Your task to perform on an android device: Open the calendar app, open the side menu, and click the "Day" option Image 0: 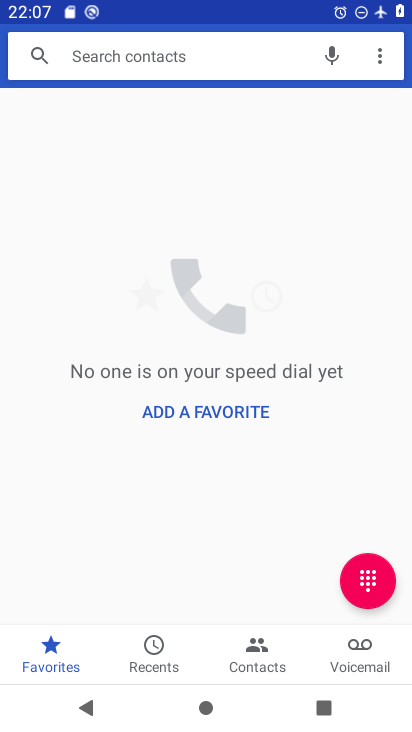
Step 0: press home button
Your task to perform on an android device: Open the calendar app, open the side menu, and click the "Day" option Image 1: 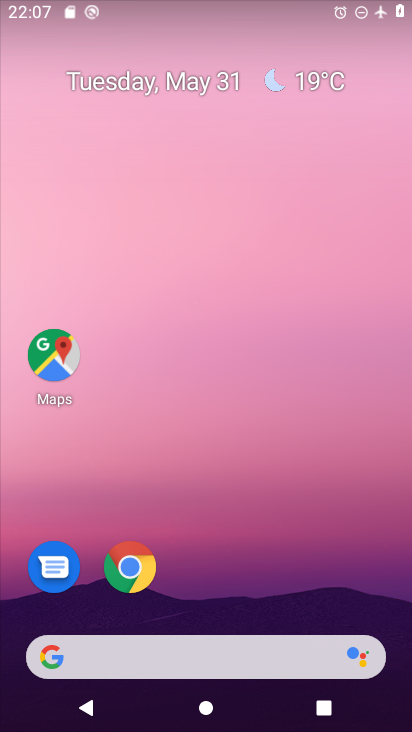
Step 1: drag from (195, 630) to (222, 257)
Your task to perform on an android device: Open the calendar app, open the side menu, and click the "Day" option Image 2: 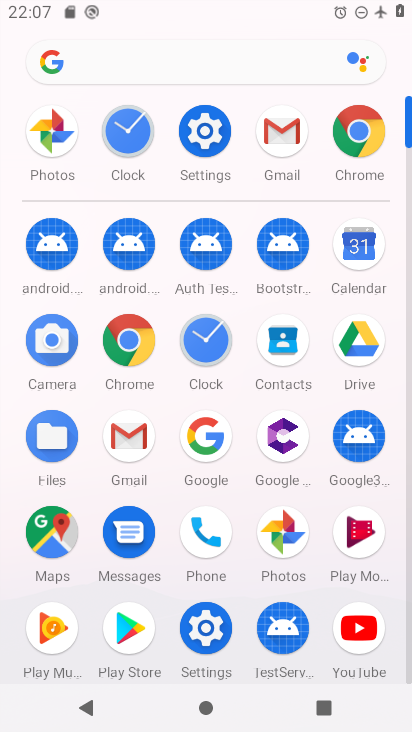
Step 2: click (351, 259)
Your task to perform on an android device: Open the calendar app, open the side menu, and click the "Day" option Image 3: 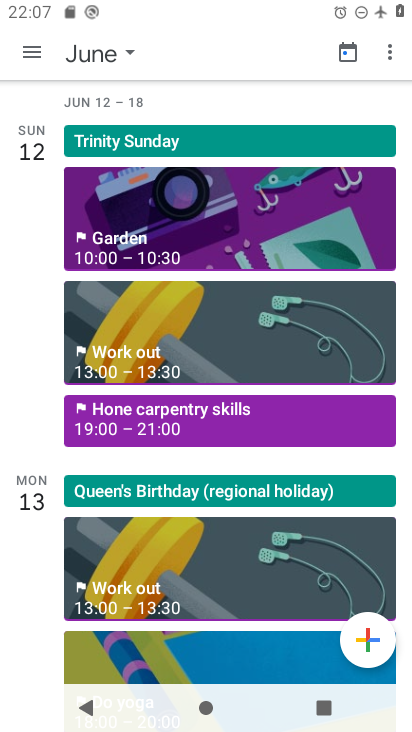
Step 3: click (23, 57)
Your task to perform on an android device: Open the calendar app, open the side menu, and click the "Day" option Image 4: 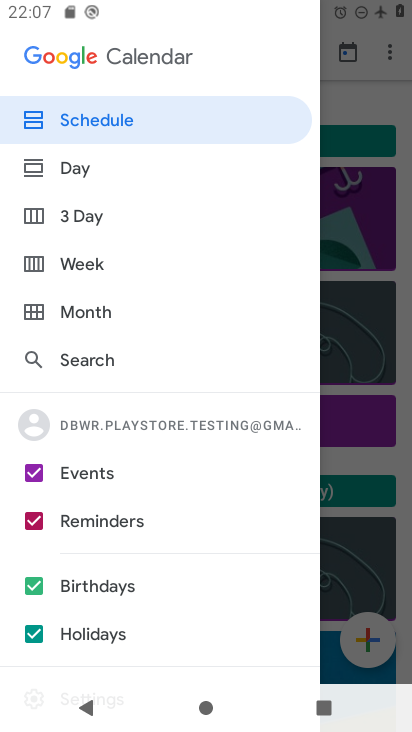
Step 4: click (73, 159)
Your task to perform on an android device: Open the calendar app, open the side menu, and click the "Day" option Image 5: 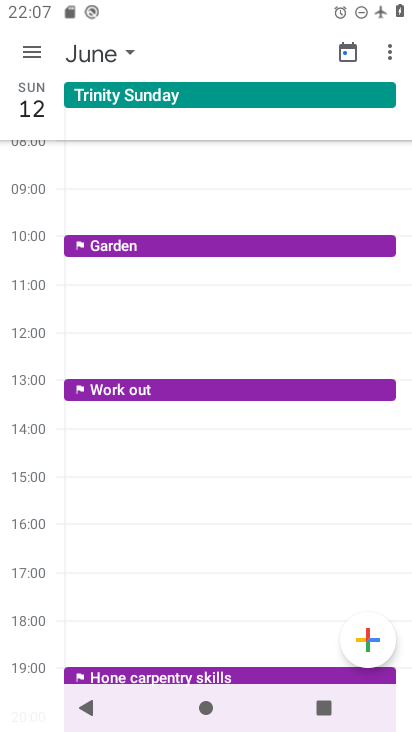
Step 5: task complete